Your task to perform on an android device: Go to Google maps Image 0: 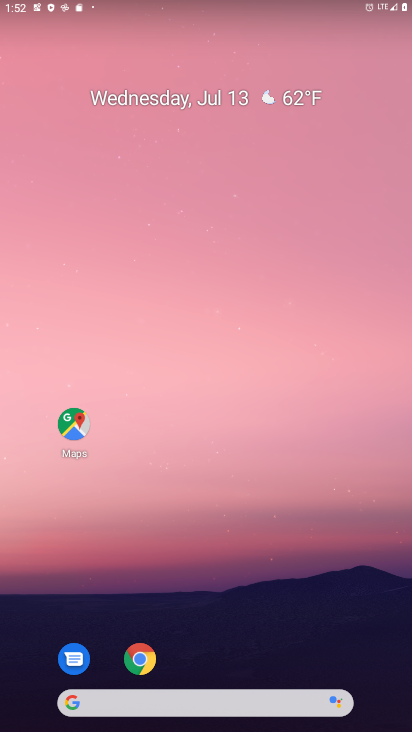
Step 0: drag from (206, 719) to (211, 677)
Your task to perform on an android device: Go to Google maps Image 1: 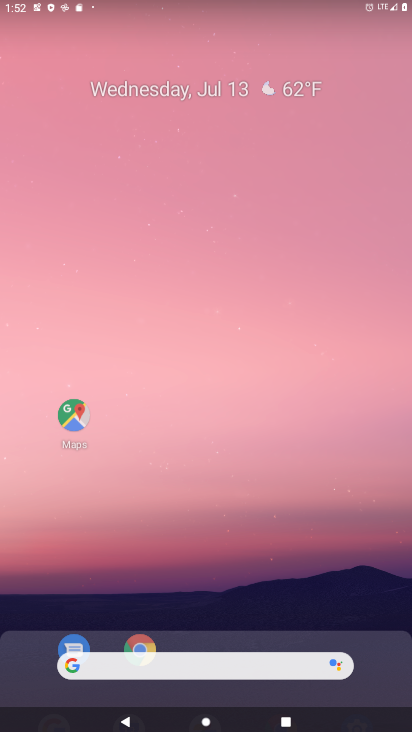
Step 1: drag from (239, 183) to (243, 71)
Your task to perform on an android device: Go to Google maps Image 2: 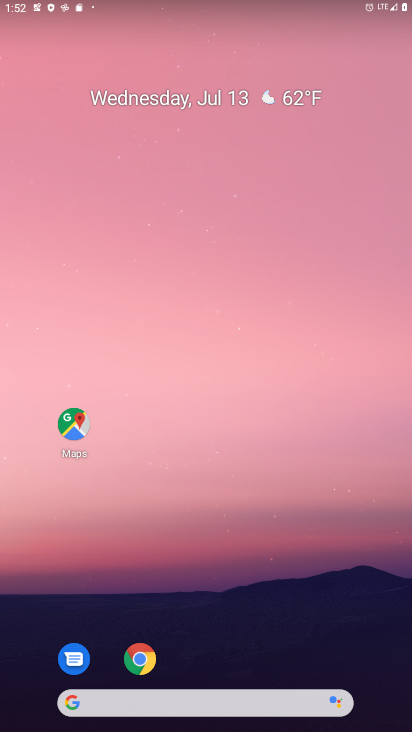
Step 2: drag from (224, 727) to (224, 595)
Your task to perform on an android device: Go to Google maps Image 3: 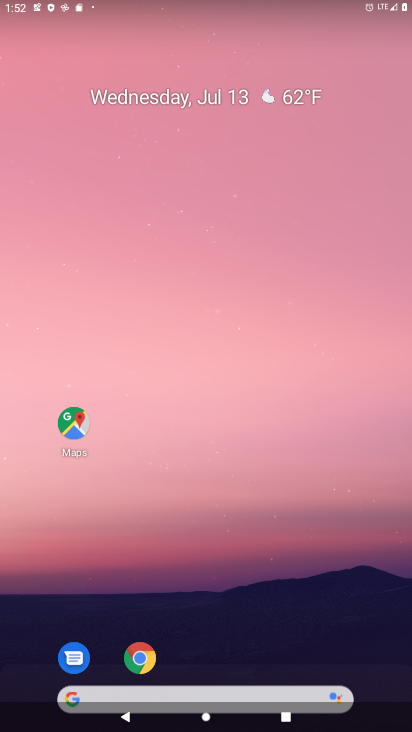
Step 3: drag from (222, 147) to (222, 100)
Your task to perform on an android device: Go to Google maps Image 4: 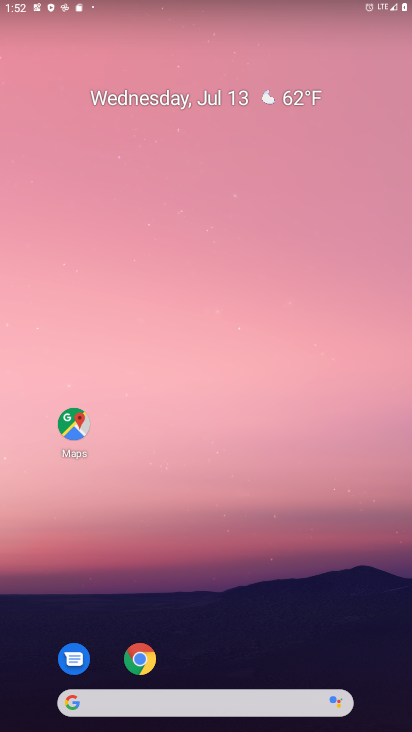
Step 4: click (189, 729)
Your task to perform on an android device: Go to Google maps Image 5: 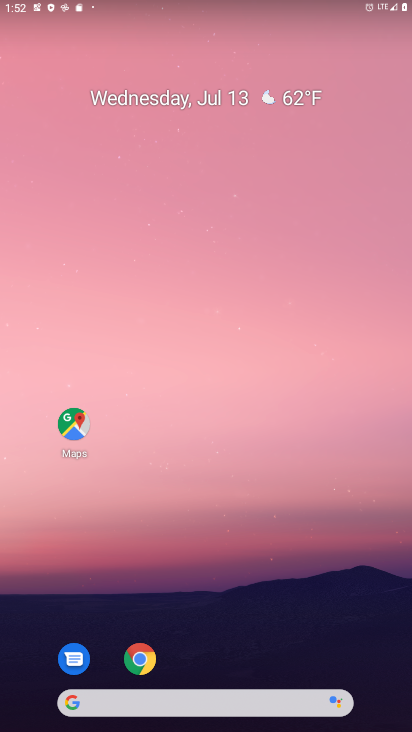
Step 5: drag from (180, 91) to (198, 10)
Your task to perform on an android device: Go to Google maps Image 6: 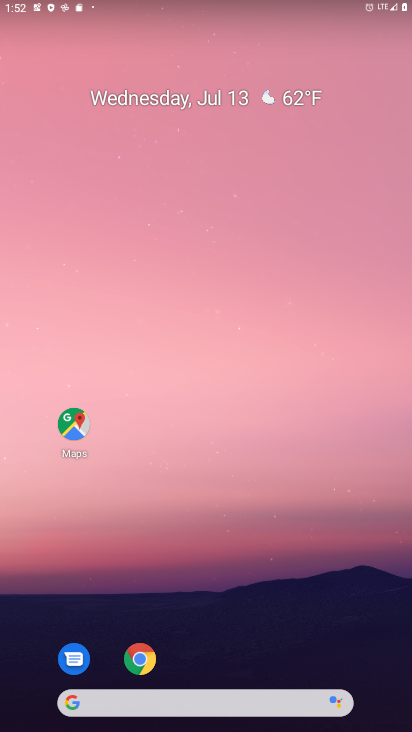
Step 6: drag from (219, 725) to (189, 9)
Your task to perform on an android device: Go to Google maps Image 7: 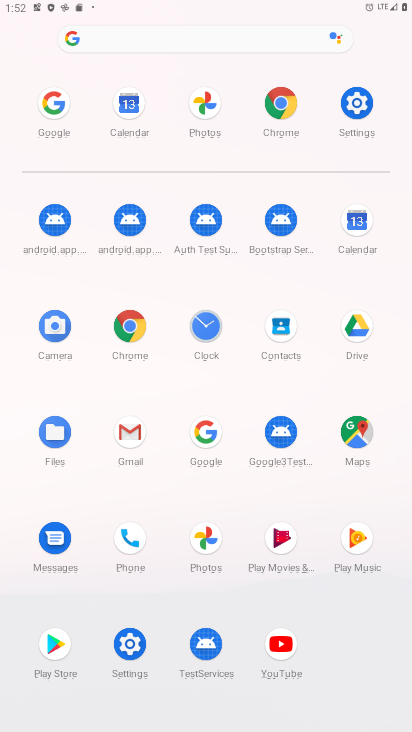
Step 7: click (365, 436)
Your task to perform on an android device: Go to Google maps Image 8: 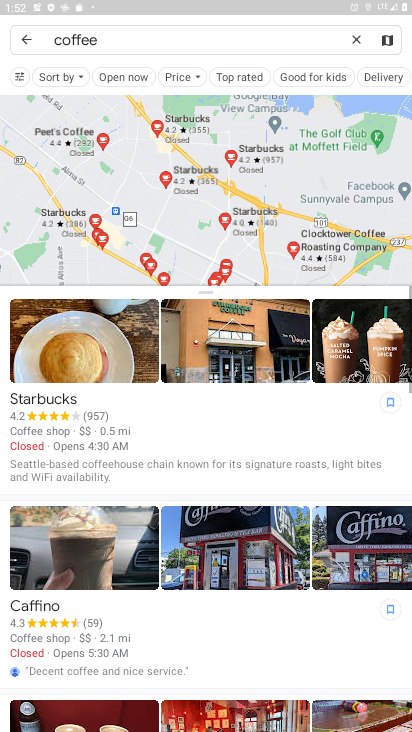
Step 8: task complete